Your task to perform on an android device: turn off data saver in the chrome app Image 0: 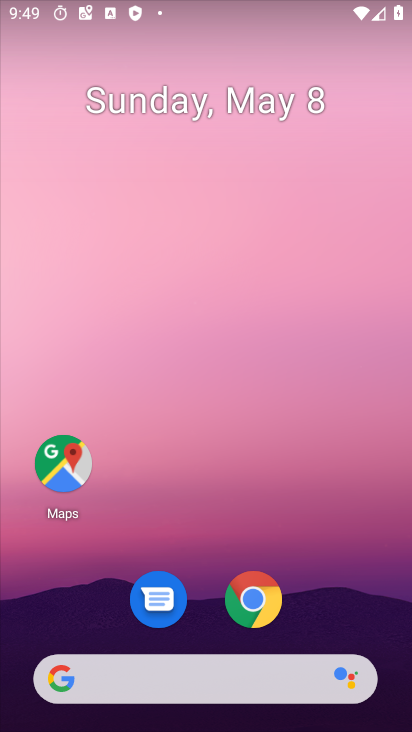
Step 0: drag from (205, 659) to (210, 207)
Your task to perform on an android device: turn off data saver in the chrome app Image 1: 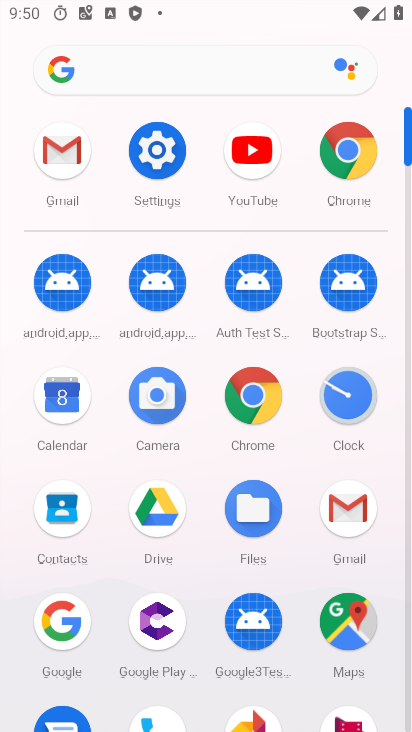
Step 1: click (337, 193)
Your task to perform on an android device: turn off data saver in the chrome app Image 2: 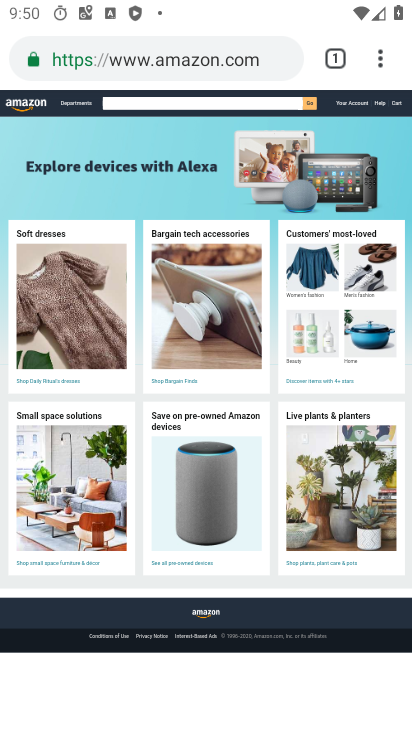
Step 2: click (389, 58)
Your task to perform on an android device: turn off data saver in the chrome app Image 3: 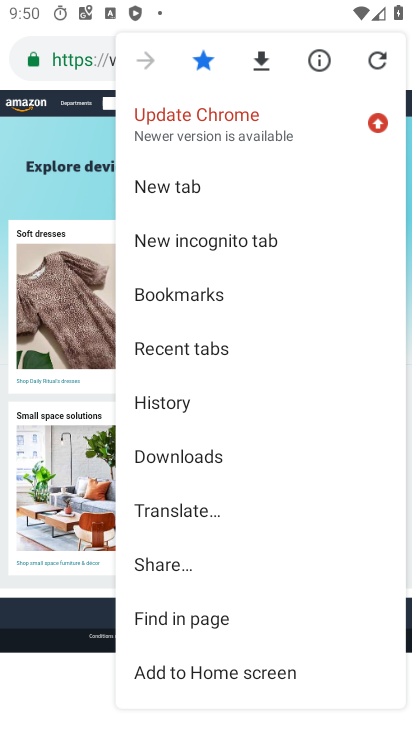
Step 3: drag from (247, 592) to (236, 189)
Your task to perform on an android device: turn off data saver in the chrome app Image 4: 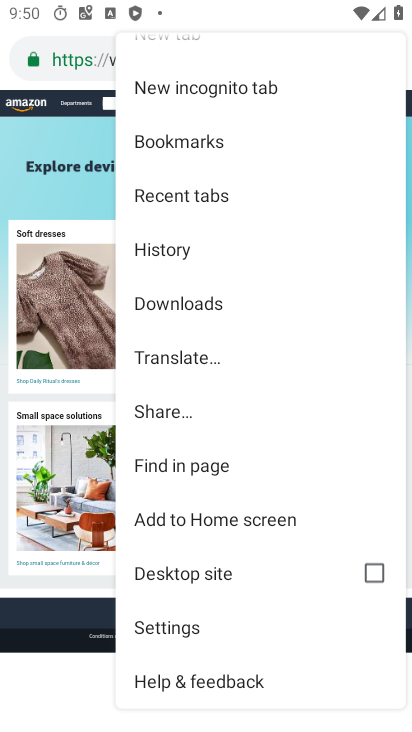
Step 4: click (214, 634)
Your task to perform on an android device: turn off data saver in the chrome app Image 5: 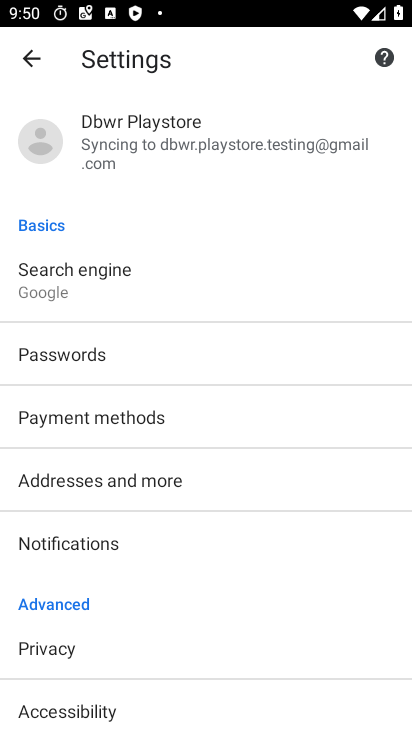
Step 5: drag from (214, 629) to (221, 241)
Your task to perform on an android device: turn off data saver in the chrome app Image 6: 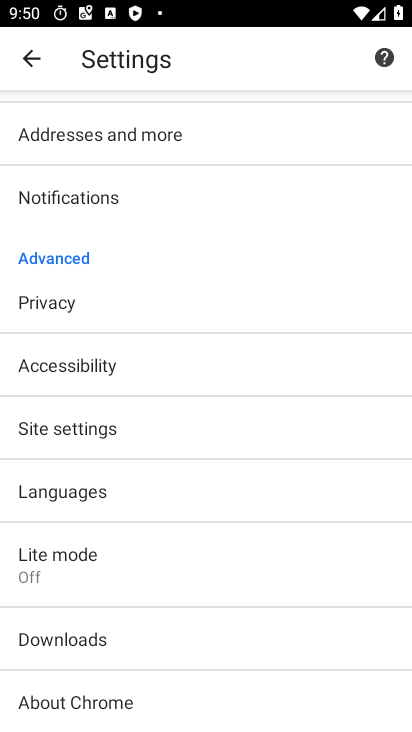
Step 6: drag from (212, 527) to (246, 277)
Your task to perform on an android device: turn off data saver in the chrome app Image 7: 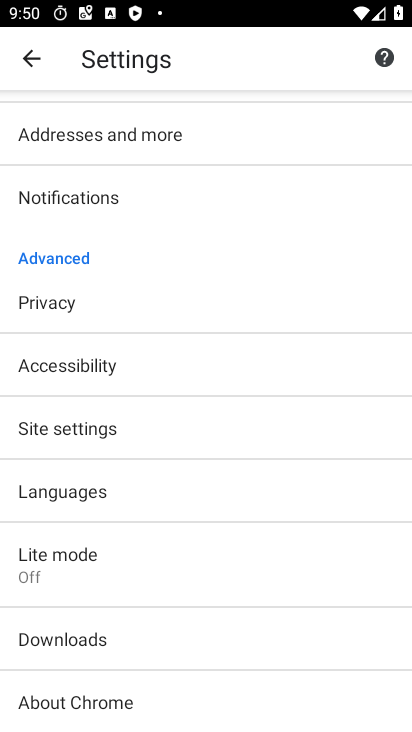
Step 7: click (117, 579)
Your task to perform on an android device: turn off data saver in the chrome app Image 8: 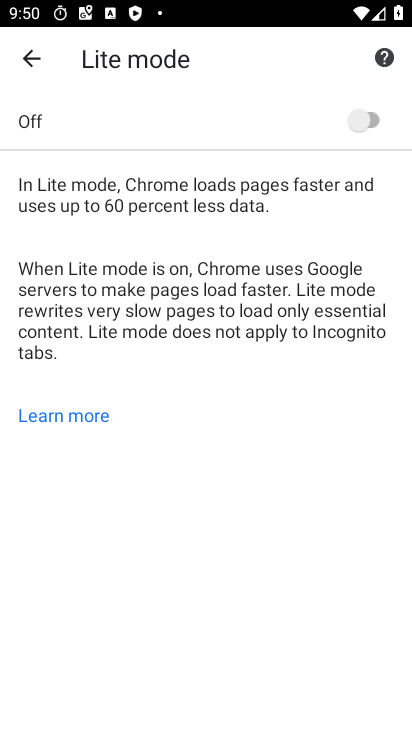
Step 8: task complete